Your task to perform on an android device: turn on improve location accuracy Image 0: 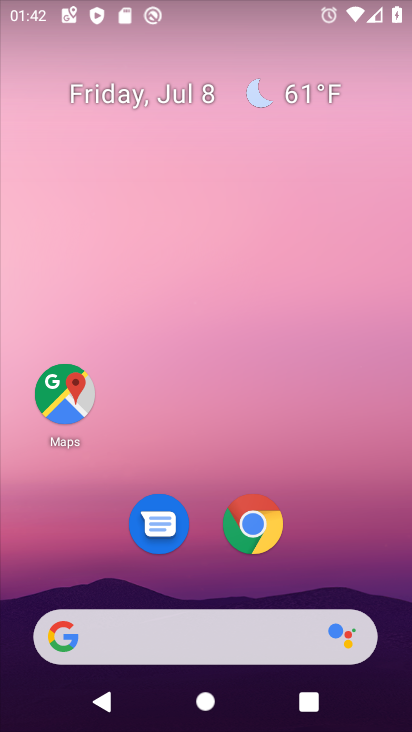
Step 0: drag from (331, 510) to (322, 72)
Your task to perform on an android device: turn on improve location accuracy Image 1: 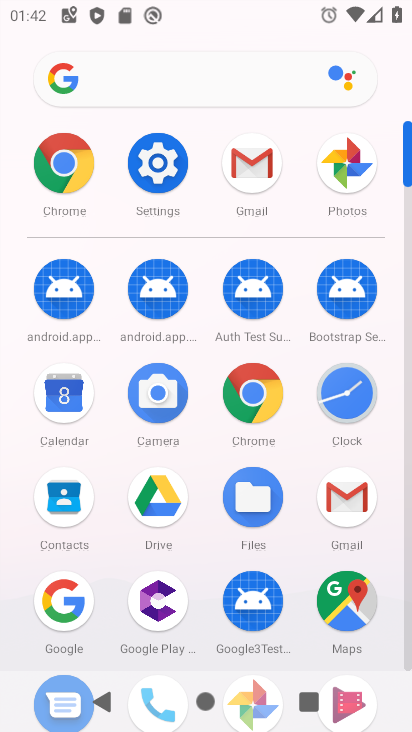
Step 1: click (157, 175)
Your task to perform on an android device: turn on improve location accuracy Image 2: 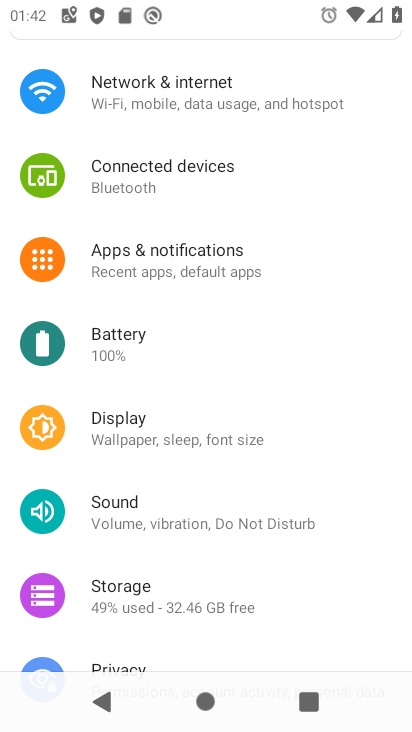
Step 2: drag from (210, 570) to (212, 211)
Your task to perform on an android device: turn on improve location accuracy Image 3: 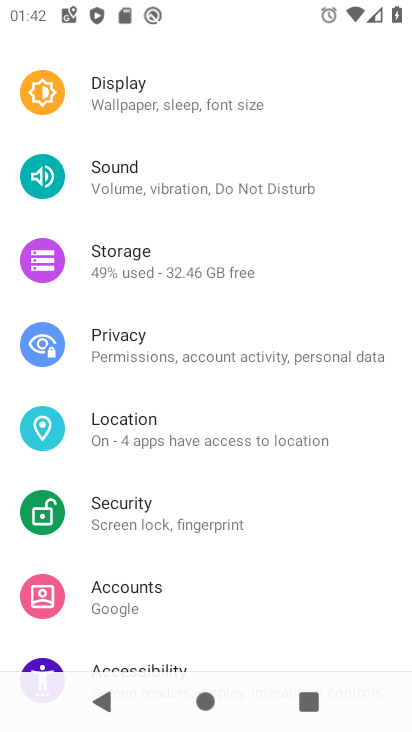
Step 3: click (243, 426)
Your task to perform on an android device: turn on improve location accuracy Image 4: 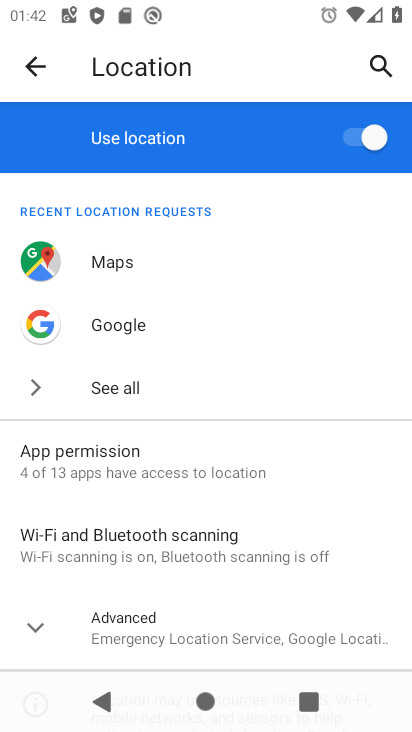
Step 4: drag from (291, 498) to (302, 345)
Your task to perform on an android device: turn on improve location accuracy Image 5: 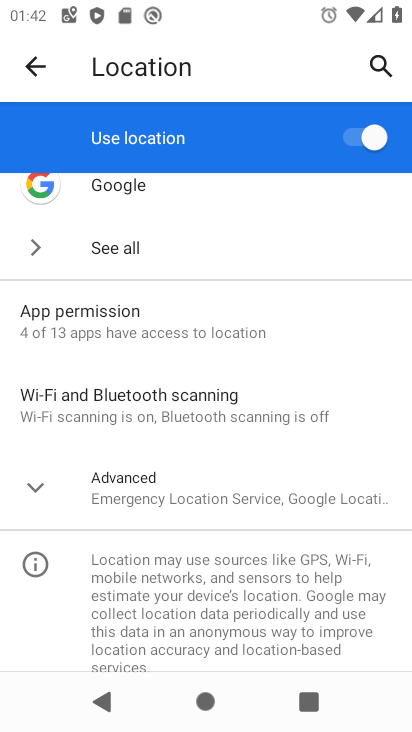
Step 5: click (38, 486)
Your task to perform on an android device: turn on improve location accuracy Image 6: 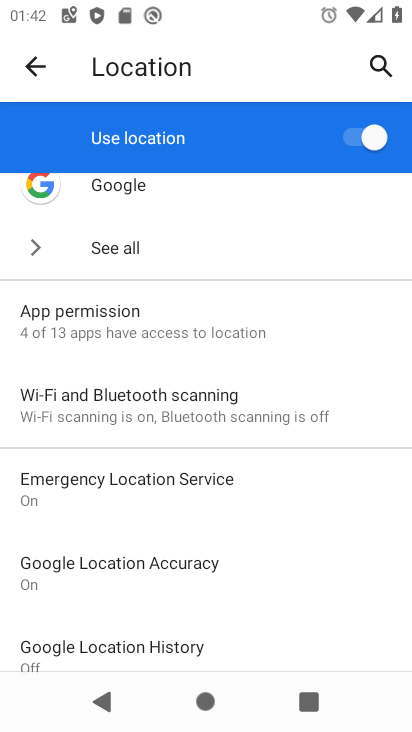
Step 6: click (200, 579)
Your task to perform on an android device: turn on improve location accuracy Image 7: 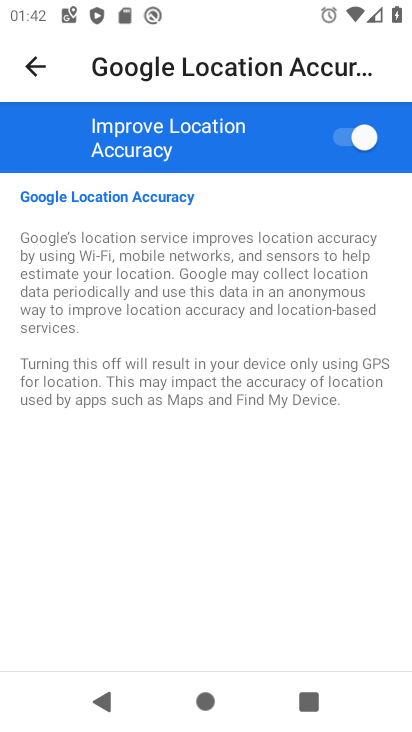
Step 7: task complete